Your task to perform on an android device: Search for sushi restaurants on Maps Image 0: 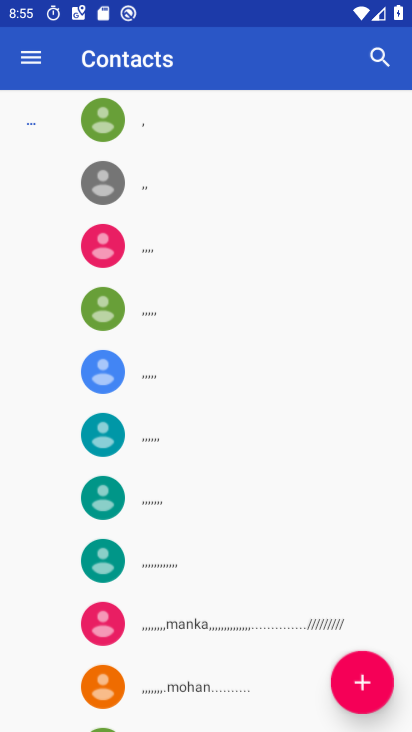
Step 0: drag from (384, 617) to (158, 88)
Your task to perform on an android device: Search for sushi restaurants on Maps Image 1: 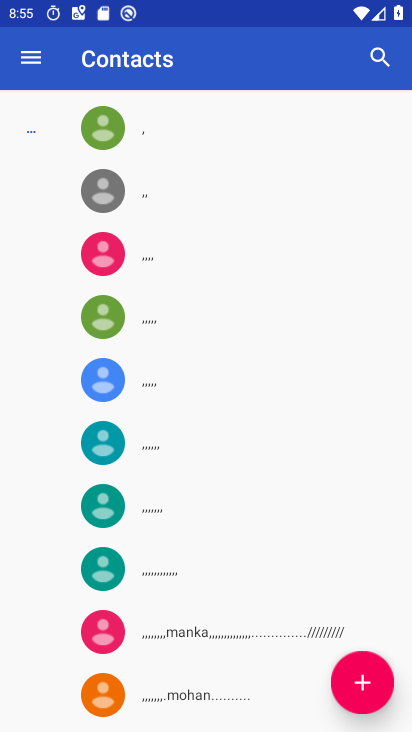
Step 1: press back button
Your task to perform on an android device: Search for sushi restaurants on Maps Image 2: 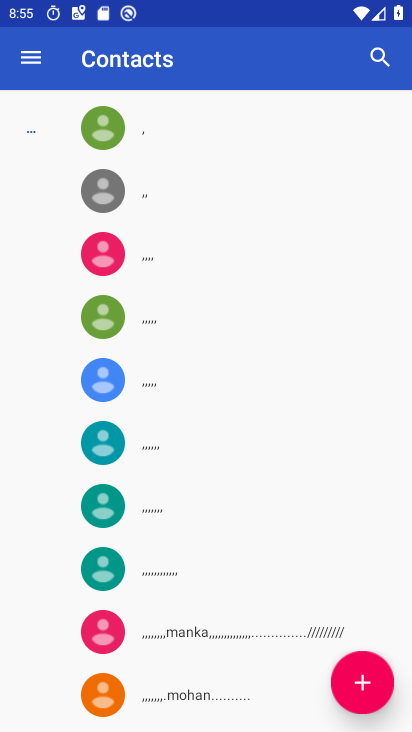
Step 2: press back button
Your task to perform on an android device: Search for sushi restaurants on Maps Image 3: 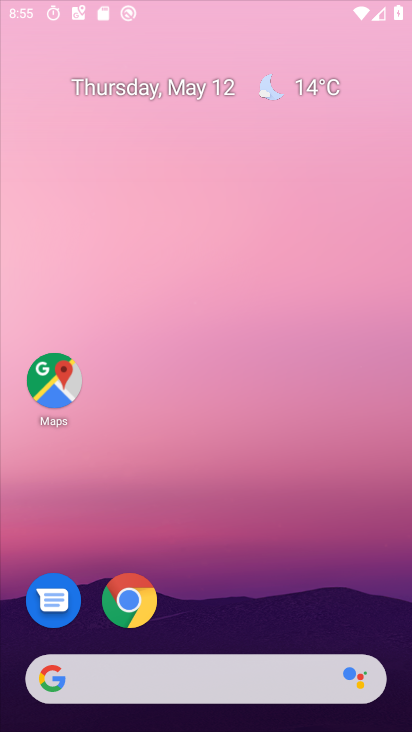
Step 3: press back button
Your task to perform on an android device: Search for sushi restaurants on Maps Image 4: 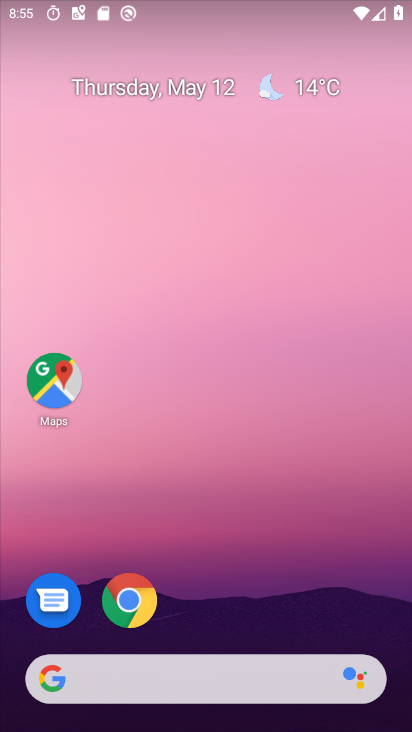
Step 4: drag from (228, 667) to (107, 44)
Your task to perform on an android device: Search for sushi restaurants on Maps Image 5: 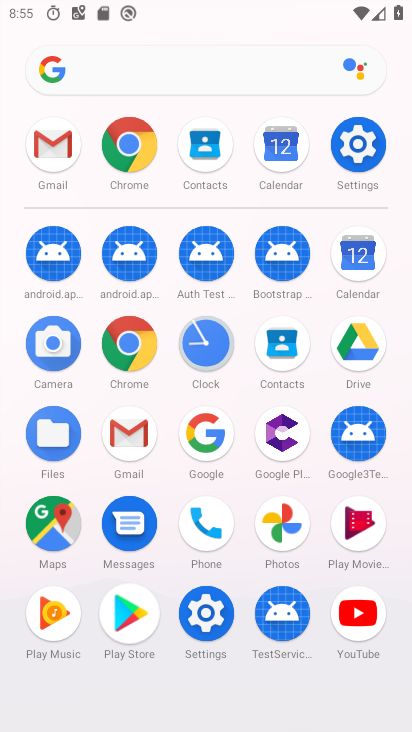
Step 5: click (56, 528)
Your task to perform on an android device: Search for sushi restaurants on Maps Image 6: 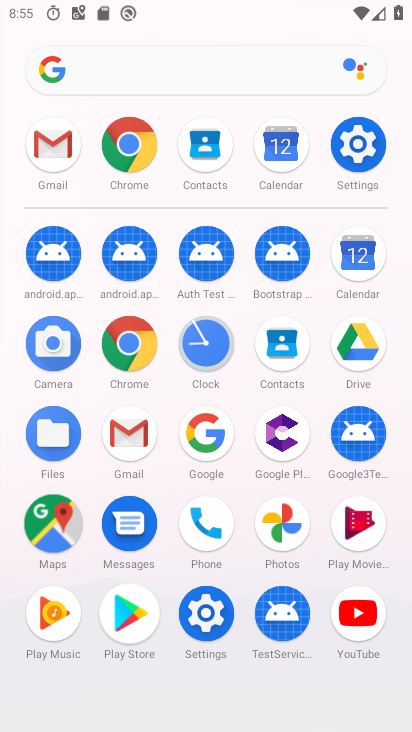
Step 6: click (55, 527)
Your task to perform on an android device: Search for sushi restaurants on Maps Image 7: 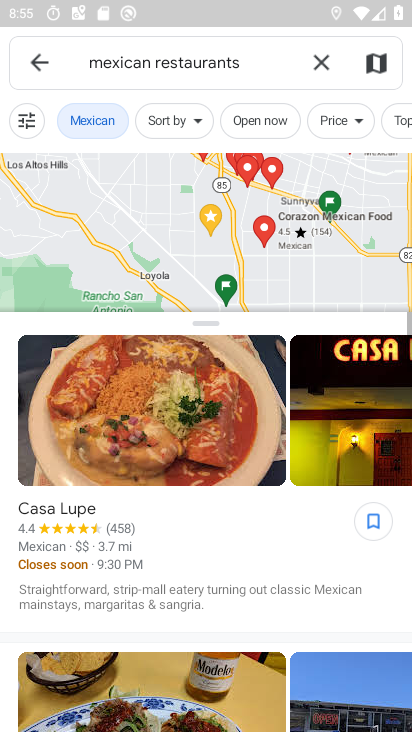
Step 7: click (321, 58)
Your task to perform on an android device: Search for sushi restaurants on Maps Image 8: 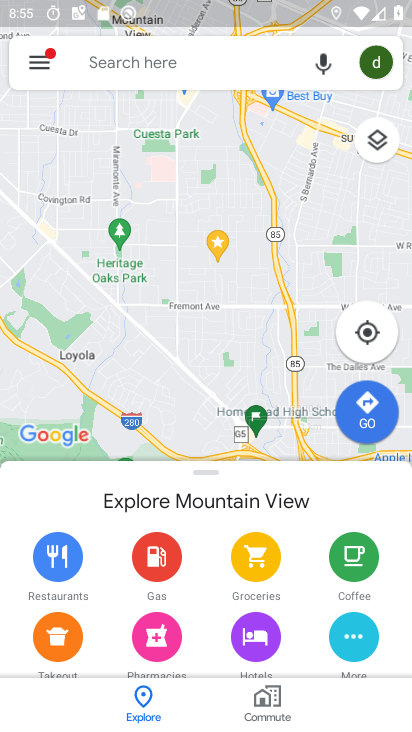
Step 8: click (84, 57)
Your task to perform on an android device: Search for sushi restaurants on Maps Image 9: 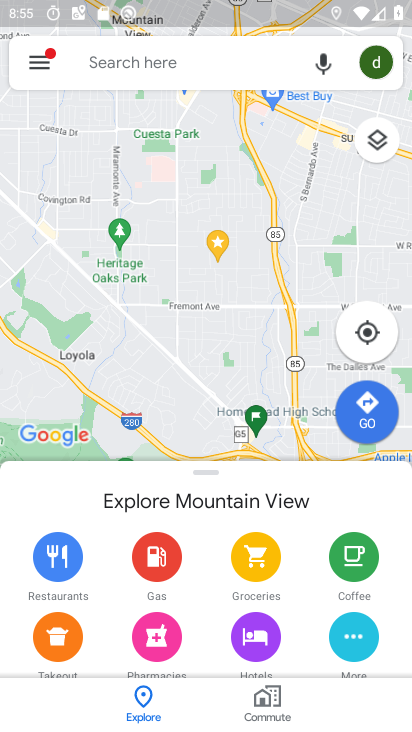
Step 9: click (98, 53)
Your task to perform on an android device: Search for sushi restaurants on Maps Image 10: 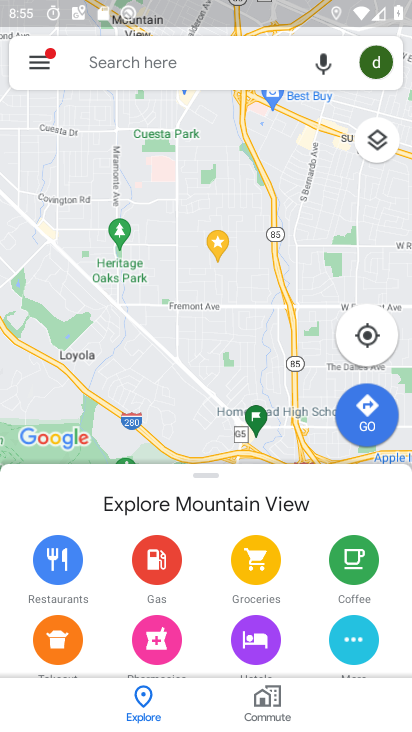
Step 10: click (98, 53)
Your task to perform on an android device: Search for sushi restaurants on Maps Image 11: 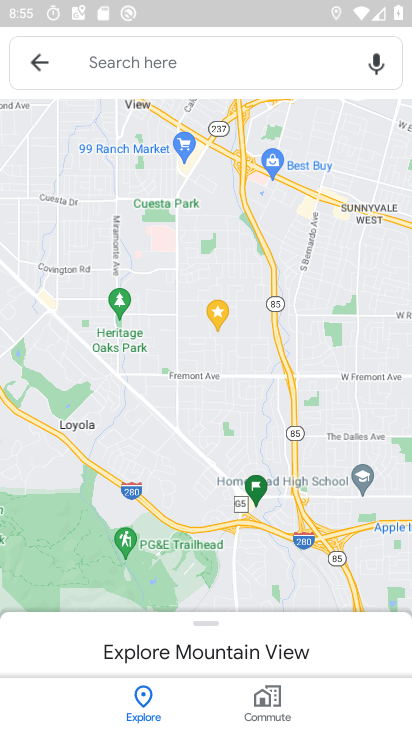
Step 11: click (98, 53)
Your task to perform on an android device: Search for sushi restaurants on Maps Image 12: 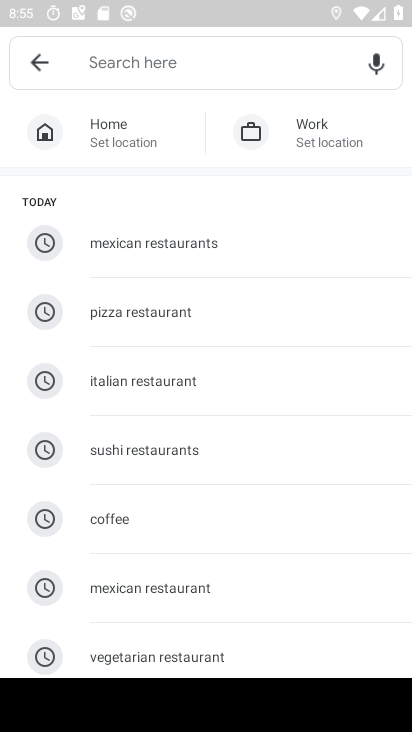
Step 12: click (154, 455)
Your task to perform on an android device: Search for sushi restaurants on Maps Image 13: 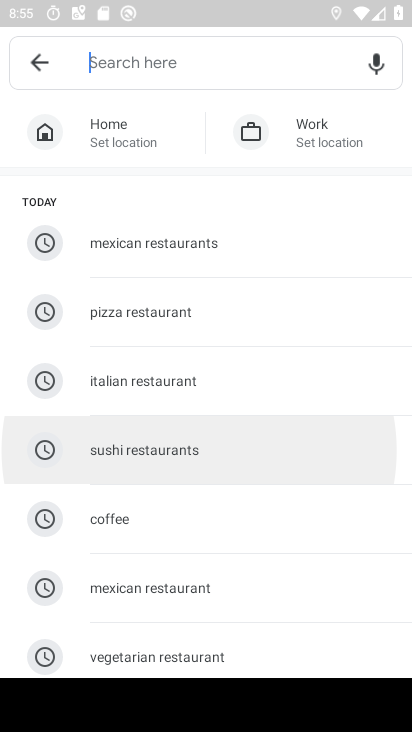
Step 13: click (154, 455)
Your task to perform on an android device: Search for sushi restaurants on Maps Image 14: 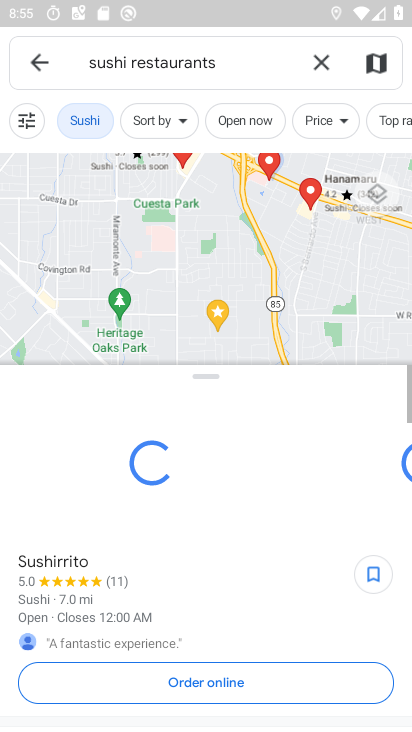
Step 14: task complete